Your task to perform on an android device: Add asus rog to the cart on amazon Image 0: 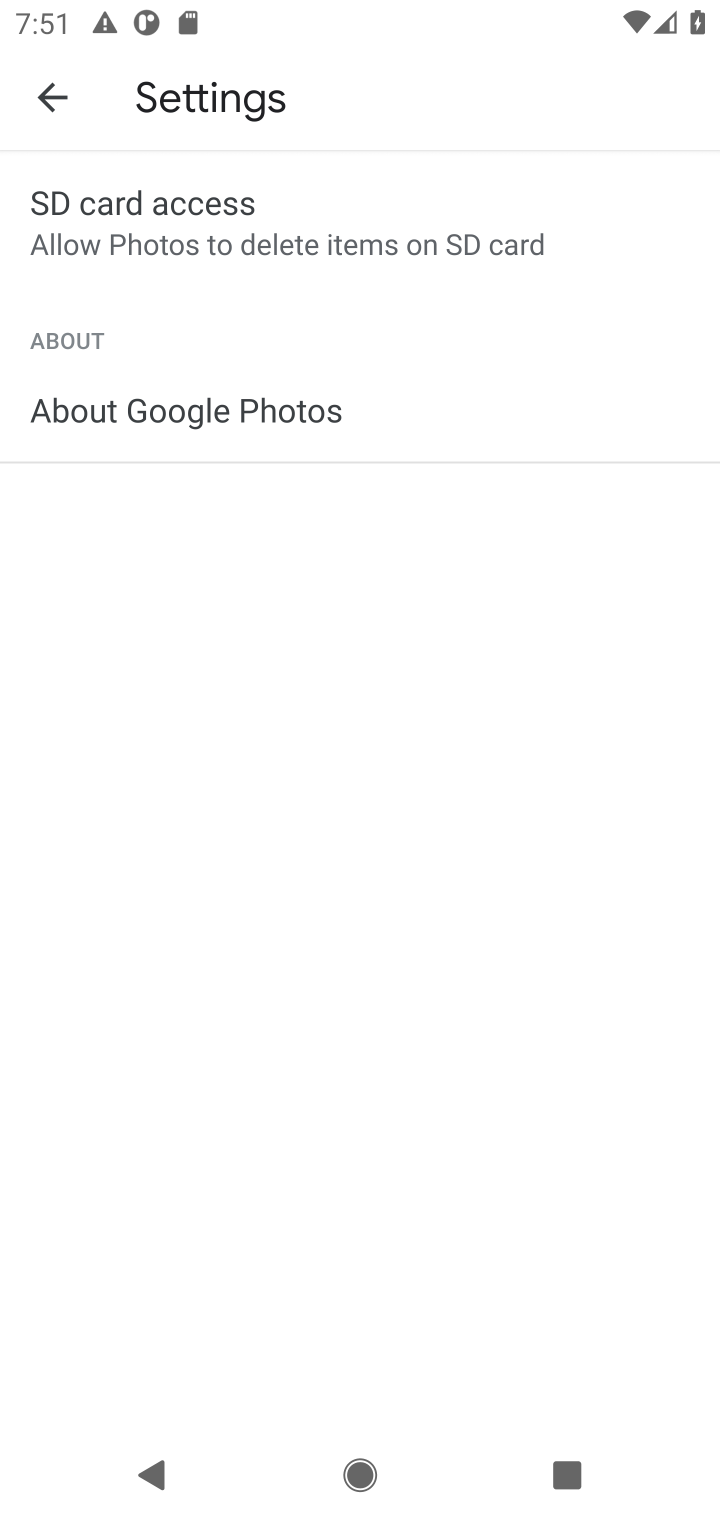
Step 0: press home button
Your task to perform on an android device: Add asus rog to the cart on amazon Image 1: 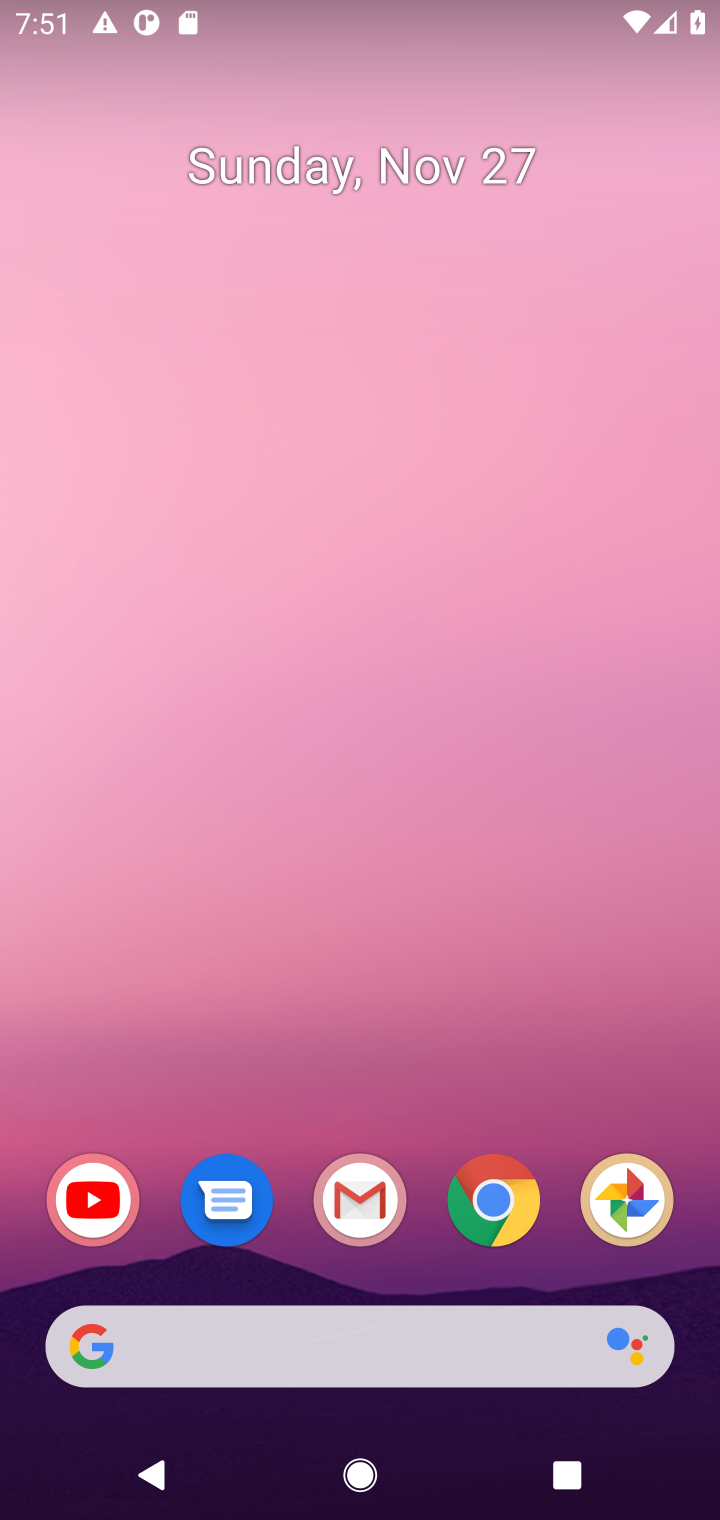
Step 1: click (504, 1204)
Your task to perform on an android device: Add asus rog to the cart on amazon Image 2: 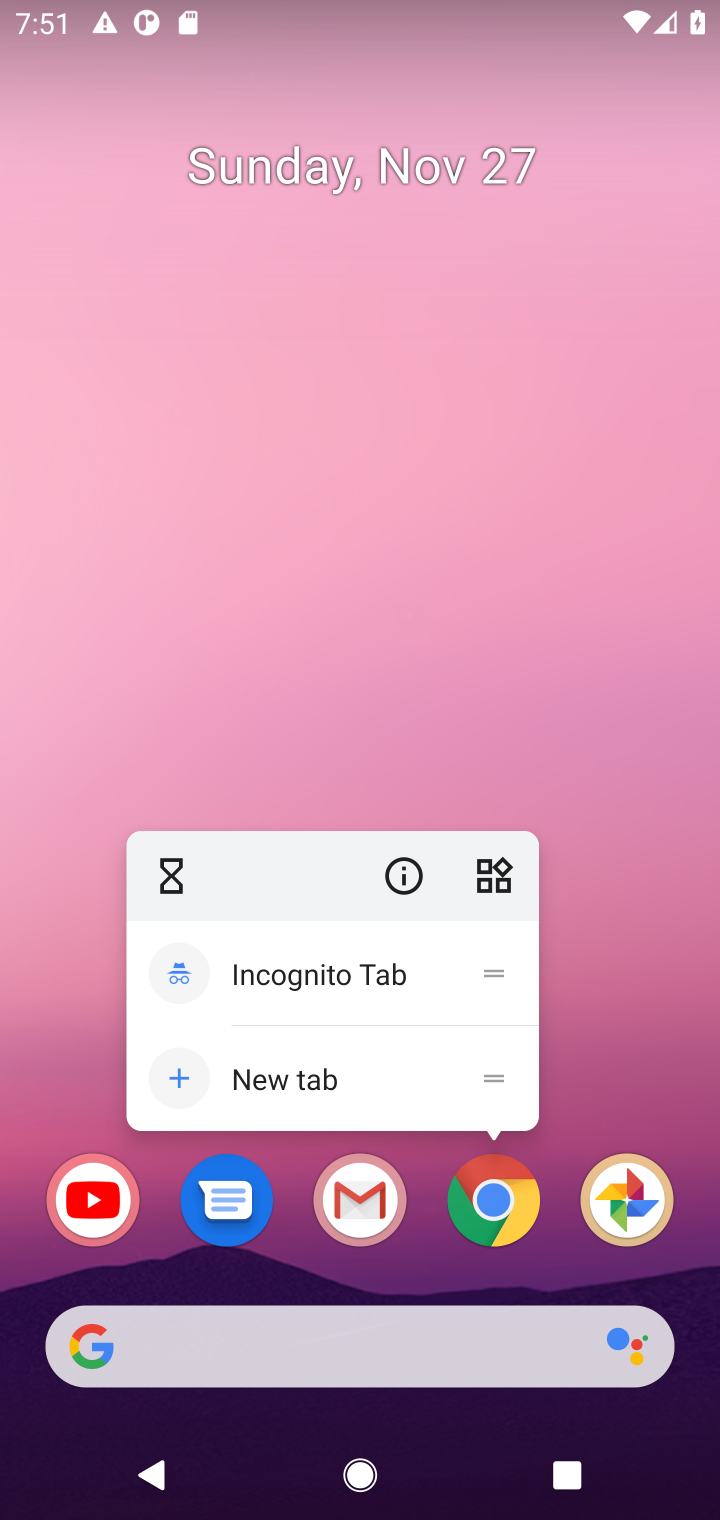
Step 2: click (504, 1204)
Your task to perform on an android device: Add asus rog to the cart on amazon Image 3: 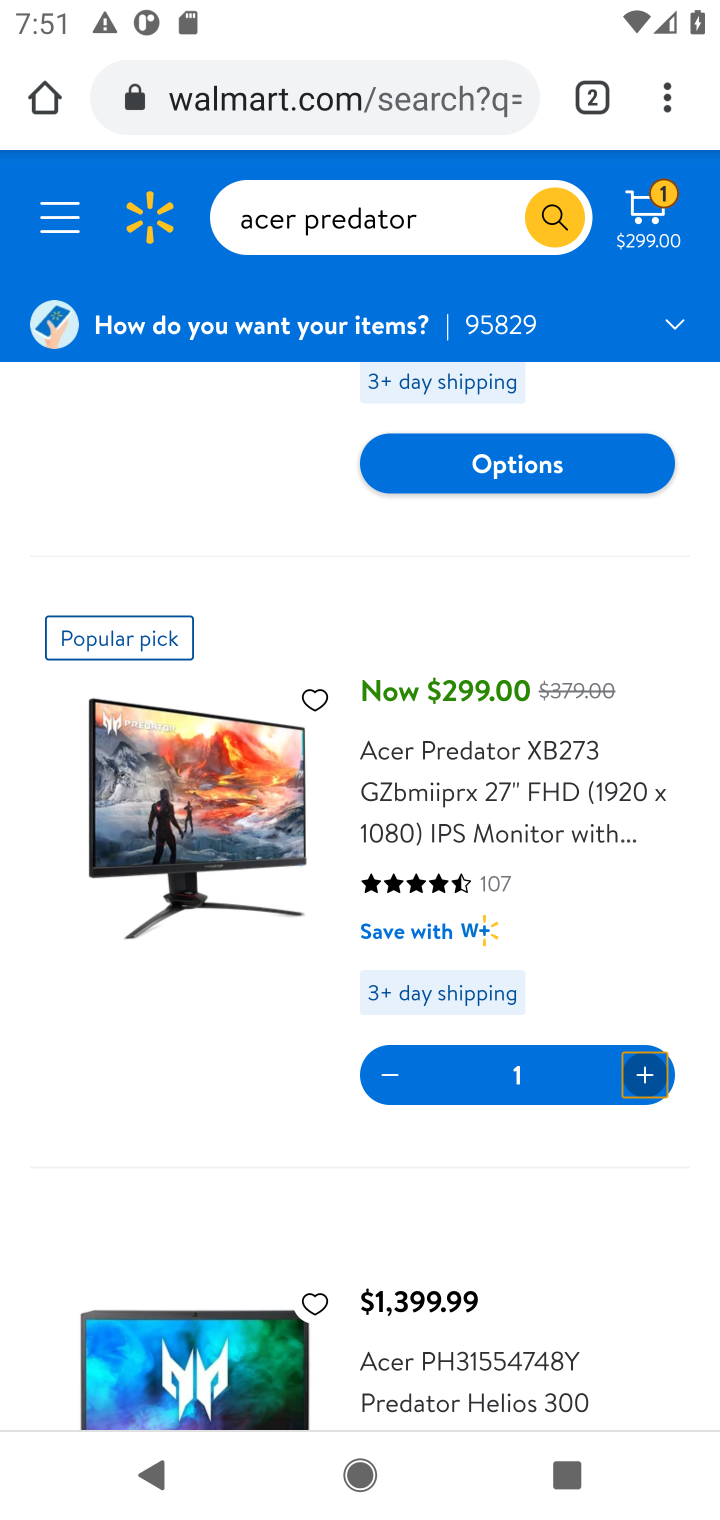
Step 3: click (348, 113)
Your task to perform on an android device: Add asus rog to the cart on amazon Image 4: 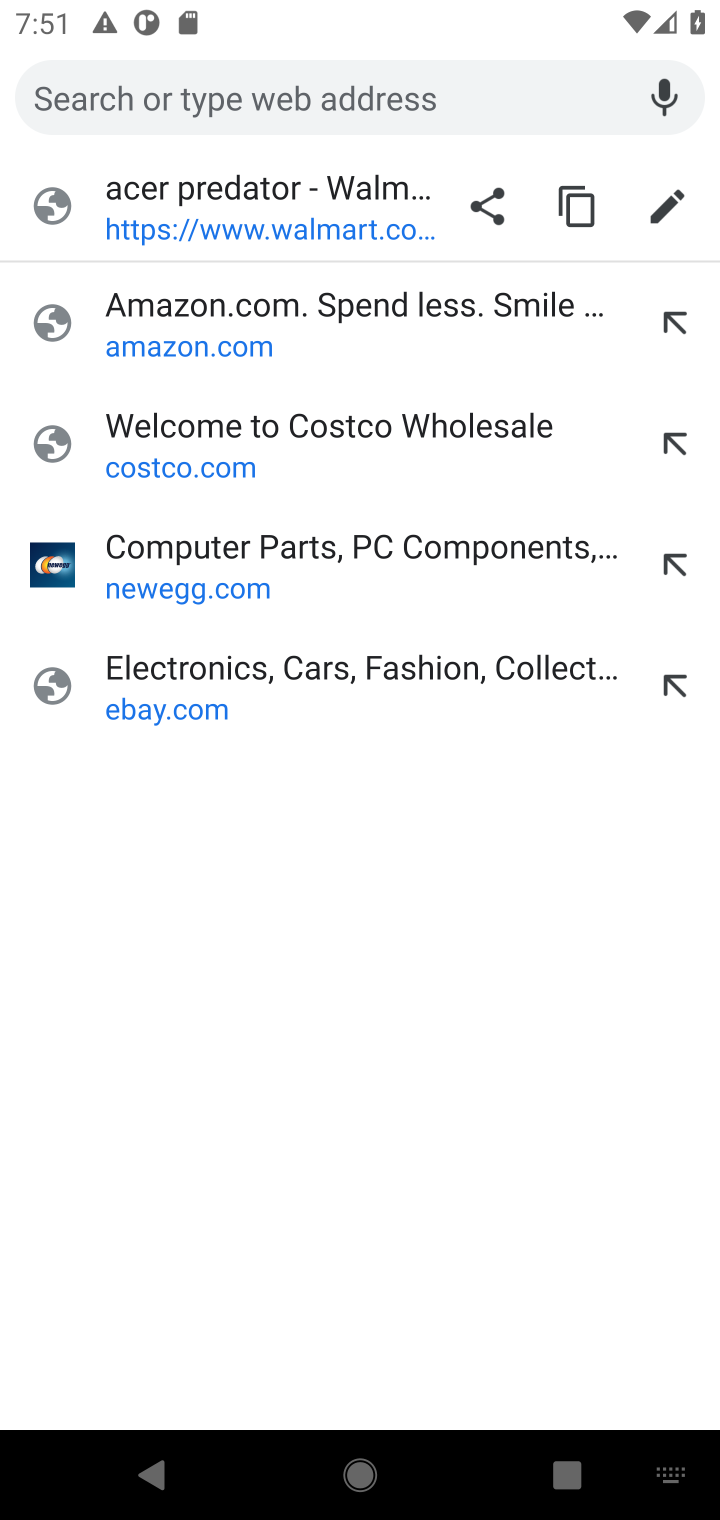
Step 4: click (190, 323)
Your task to perform on an android device: Add asus rog to the cart on amazon Image 5: 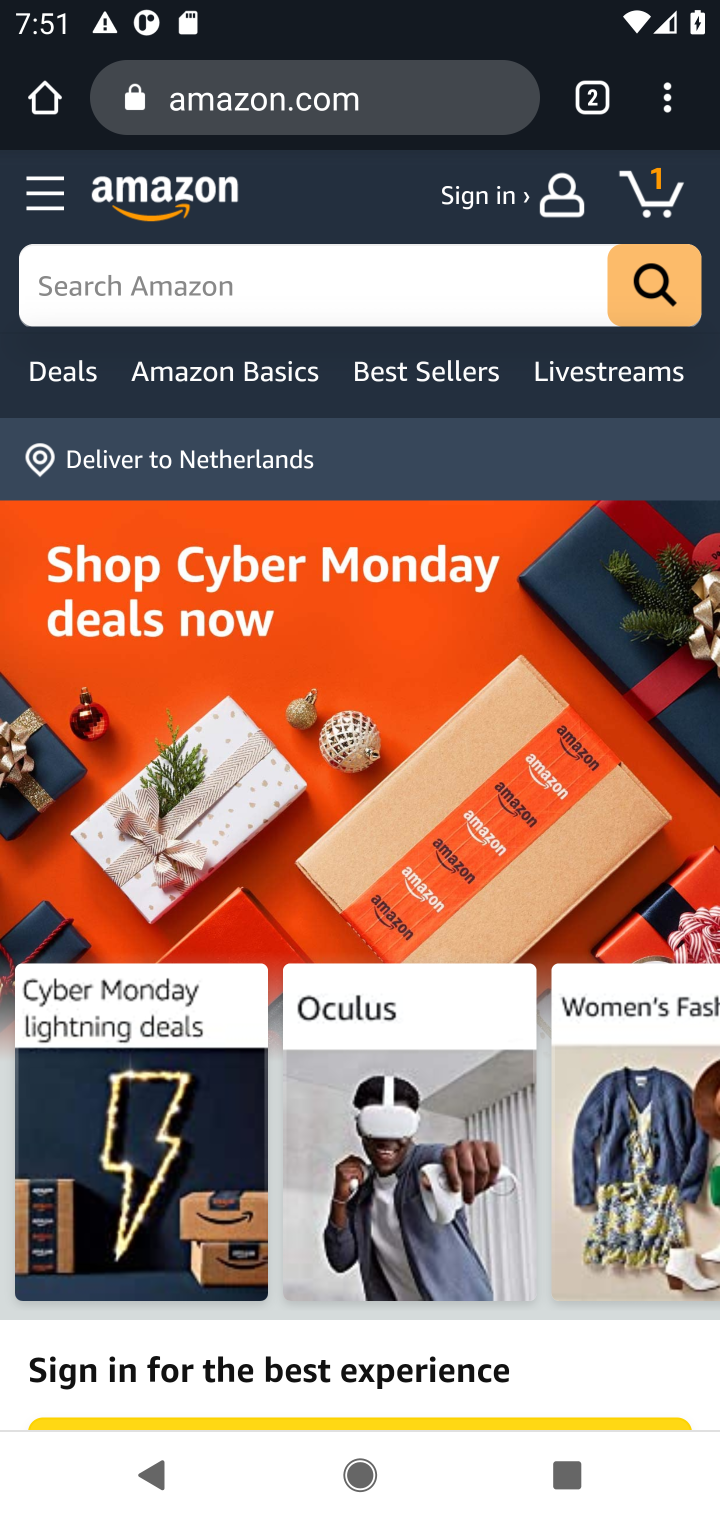
Step 5: click (164, 307)
Your task to perform on an android device: Add asus rog to the cart on amazon Image 6: 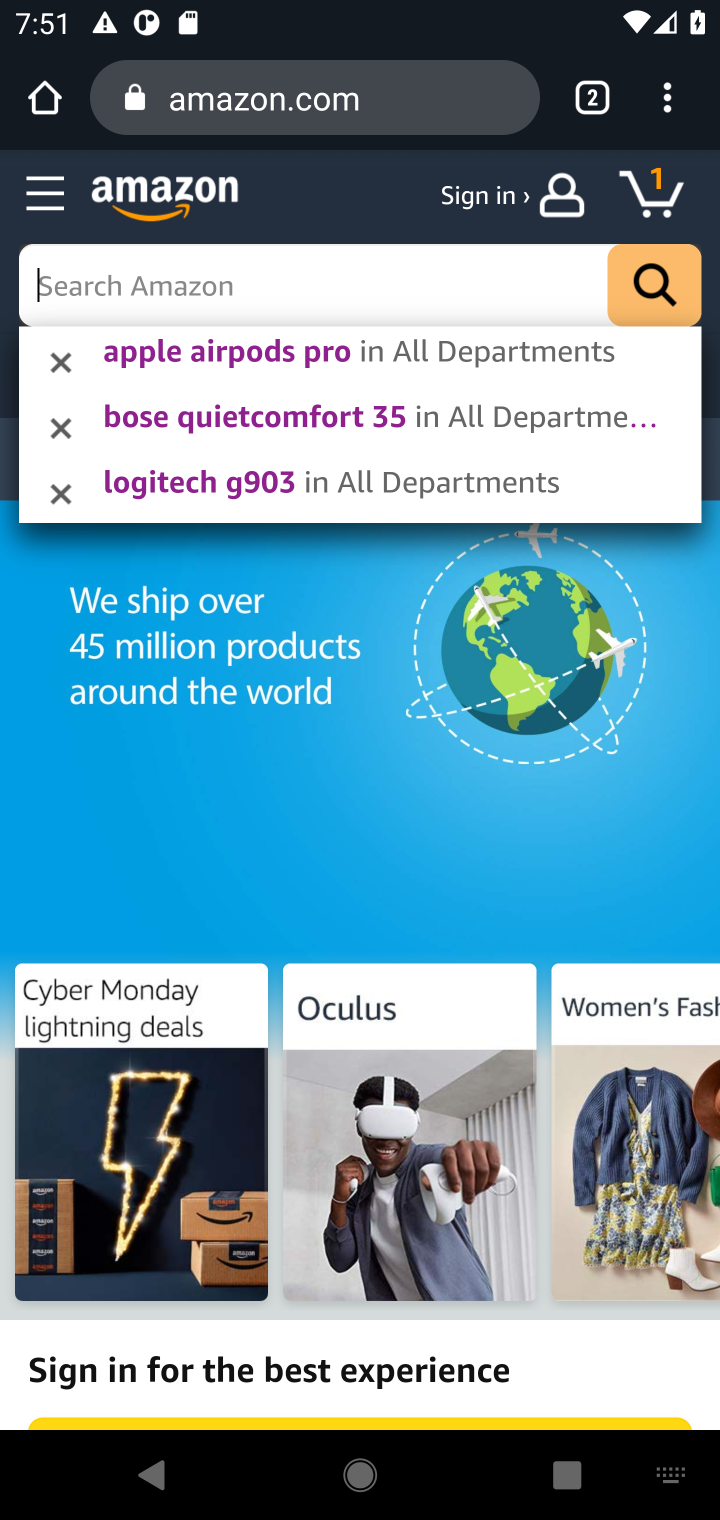
Step 6: type "asus rog"
Your task to perform on an android device: Add asus rog to the cart on amazon Image 7: 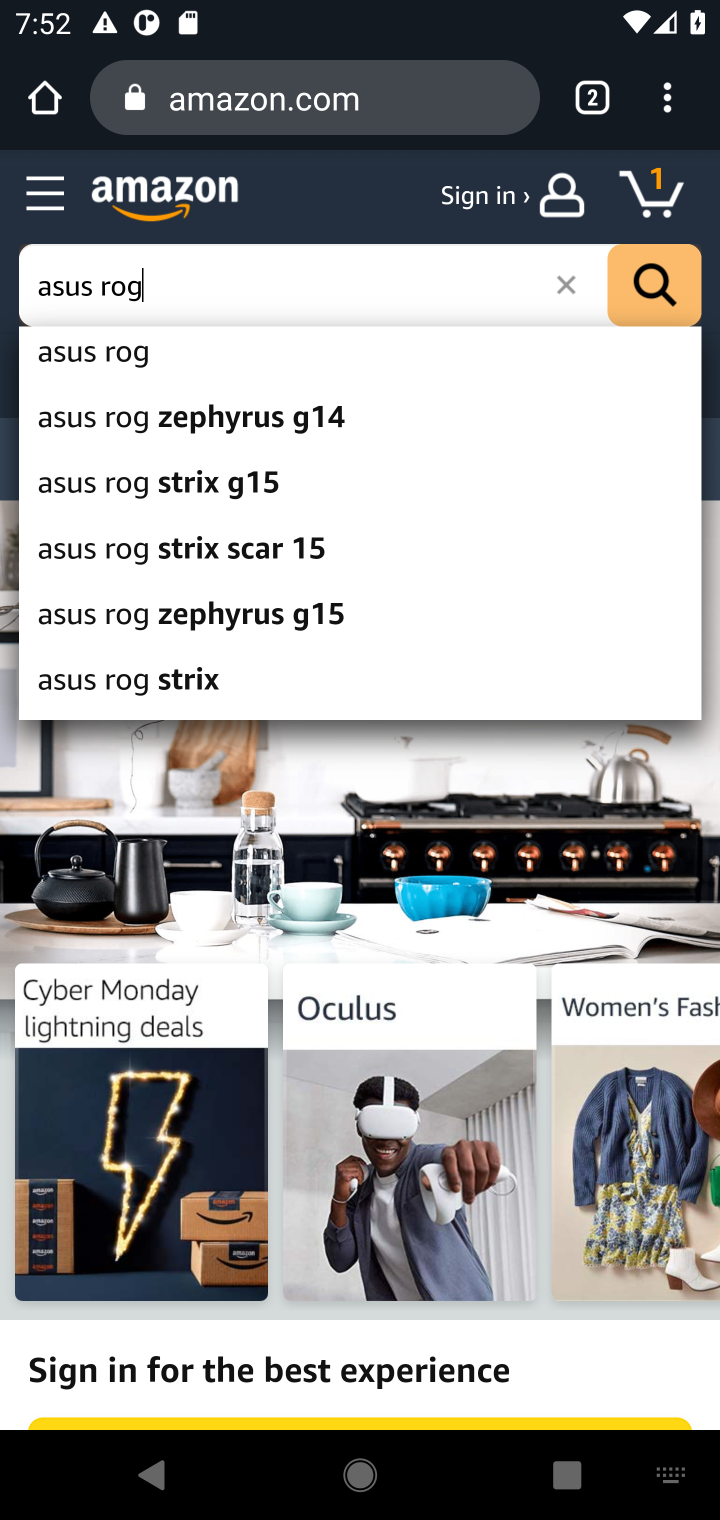
Step 7: click (127, 359)
Your task to perform on an android device: Add asus rog to the cart on amazon Image 8: 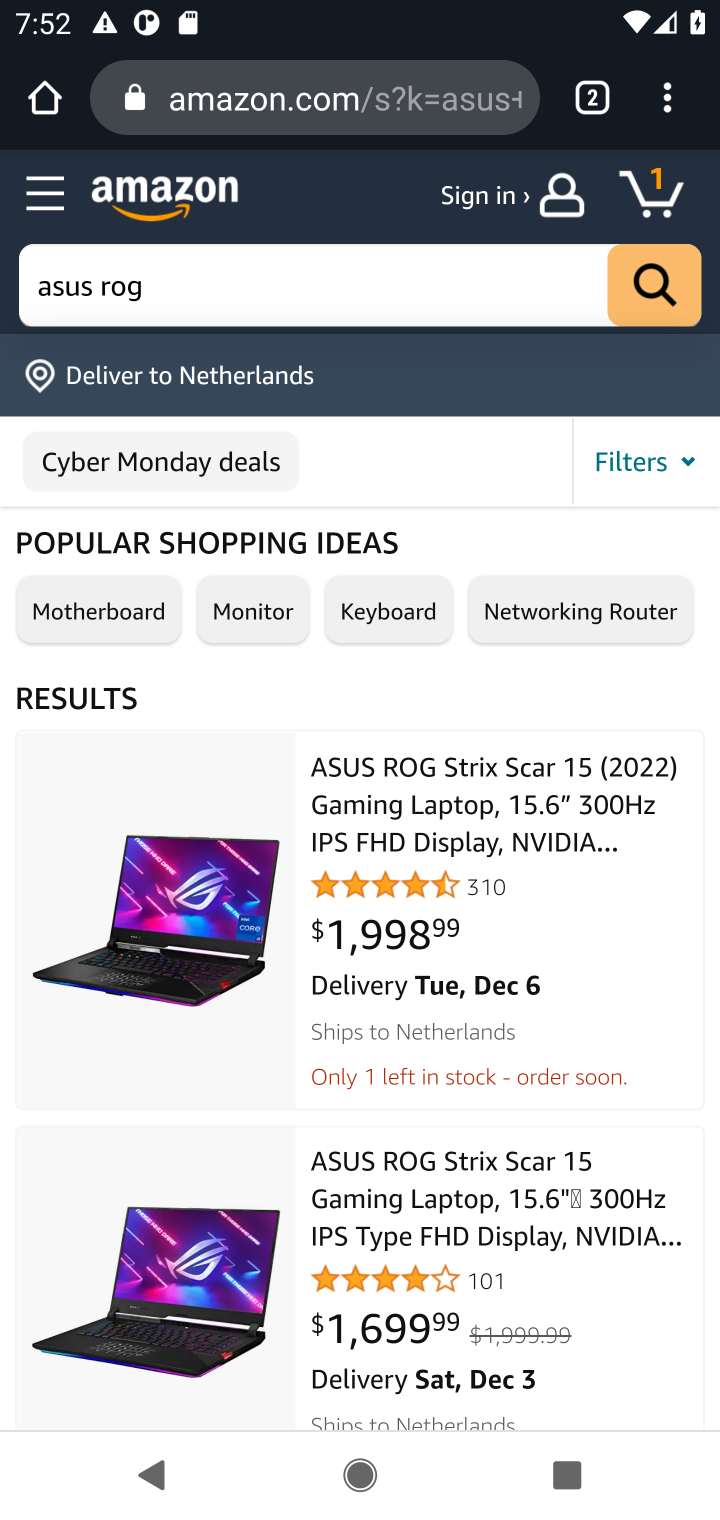
Step 8: click (131, 927)
Your task to perform on an android device: Add asus rog to the cart on amazon Image 9: 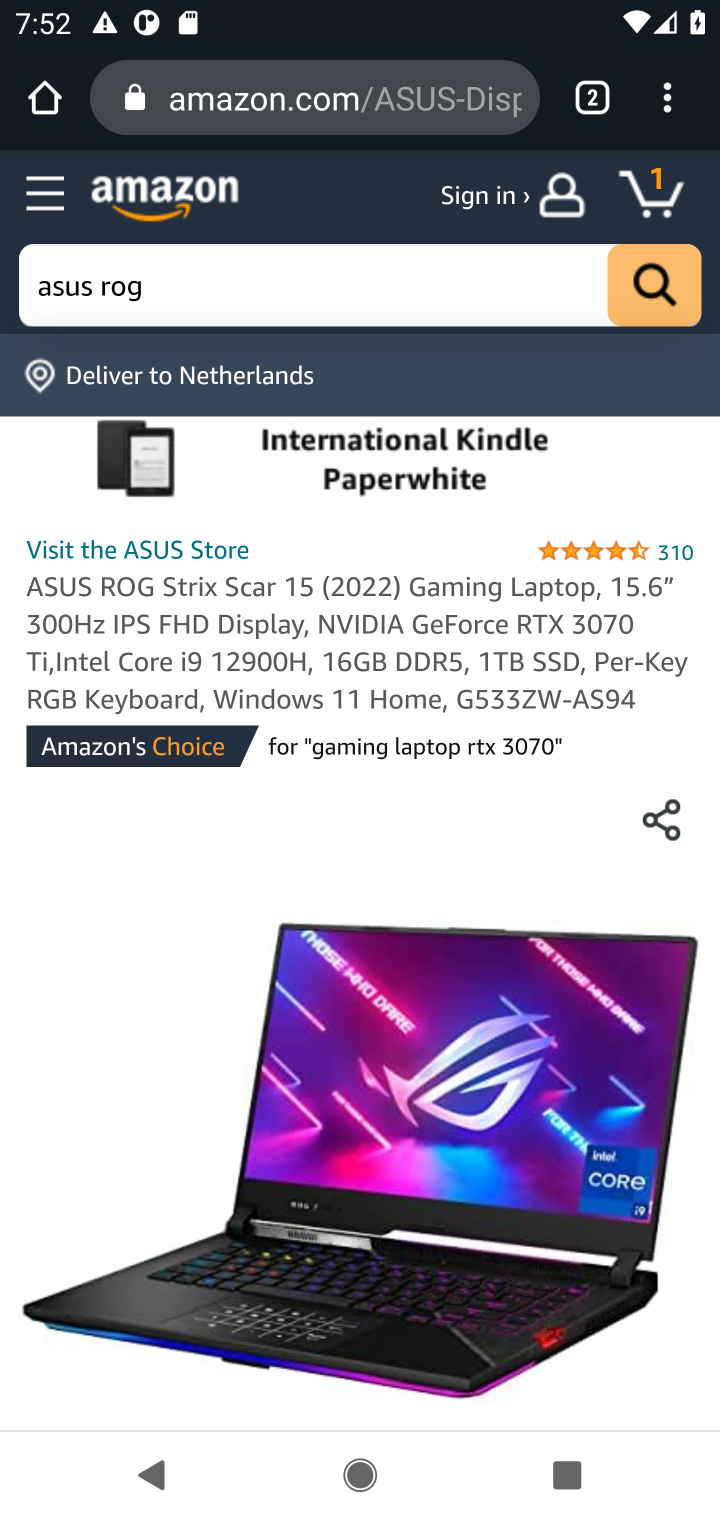
Step 9: drag from (202, 1005) to (195, 439)
Your task to perform on an android device: Add asus rog to the cart on amazon Image 10: 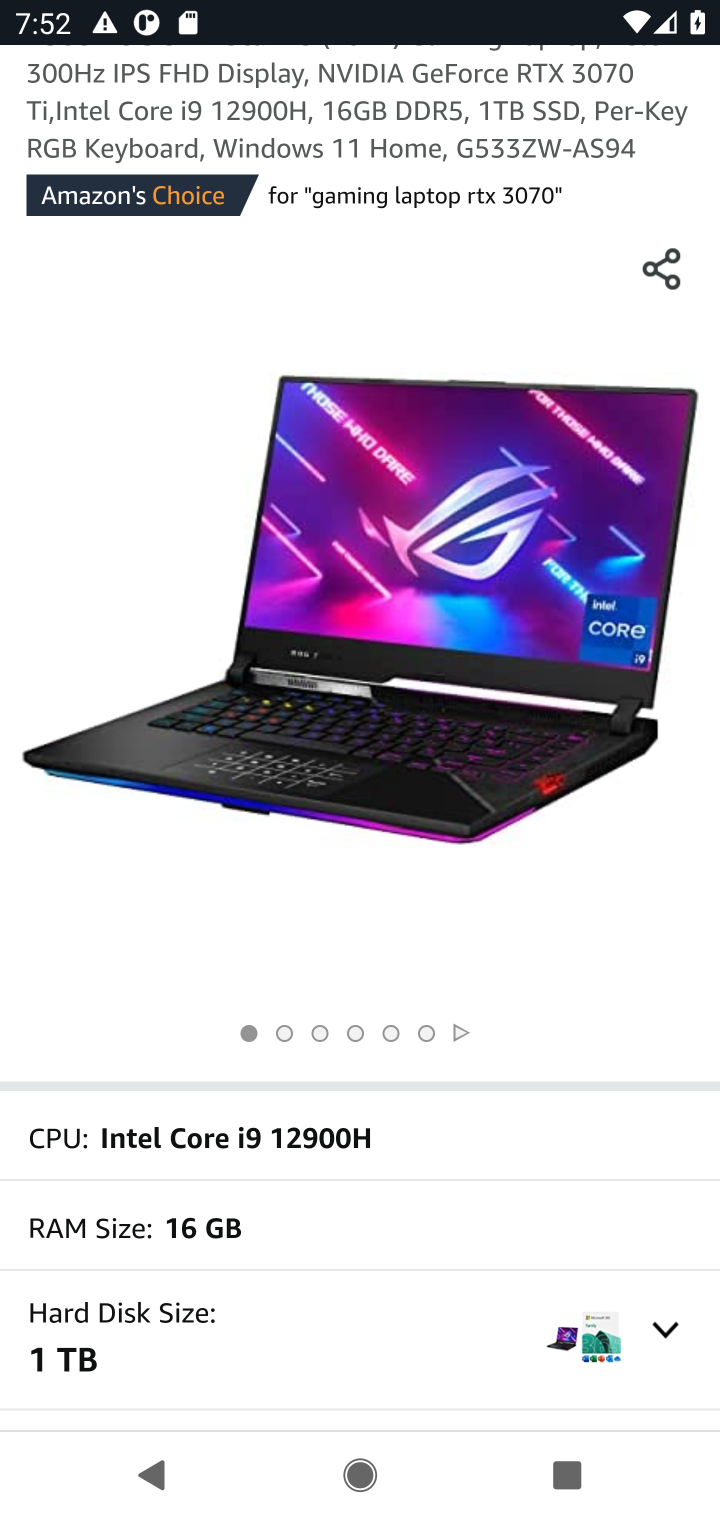
Step 10: drag from (249, 724) to (255, 309)
Your task to perform on an android device: Add asus rog to the cart on amazon Image 11: 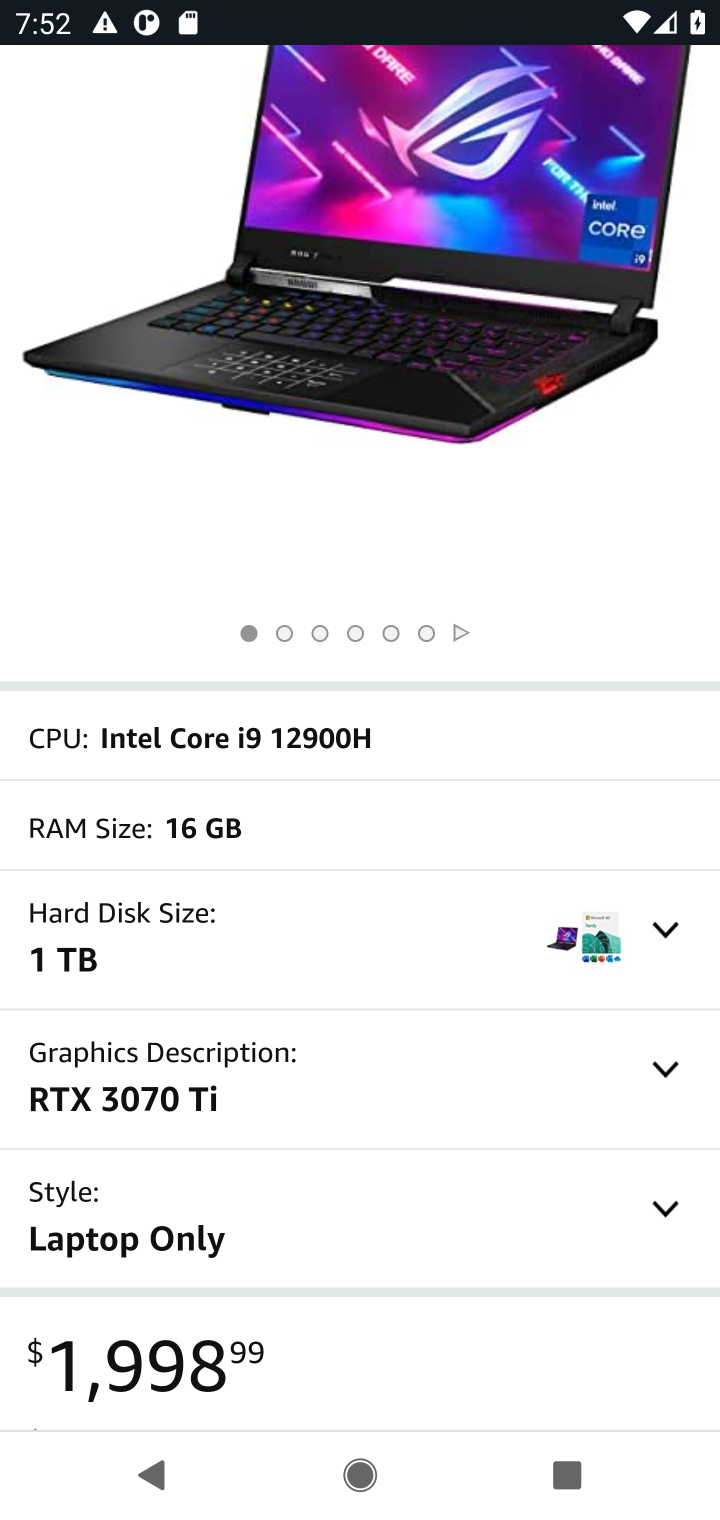
Step 11: drag from (259, 1180) to (287, 408)
Your task to perform on an android device: Add asus rog to the cart on amazon Image 12: 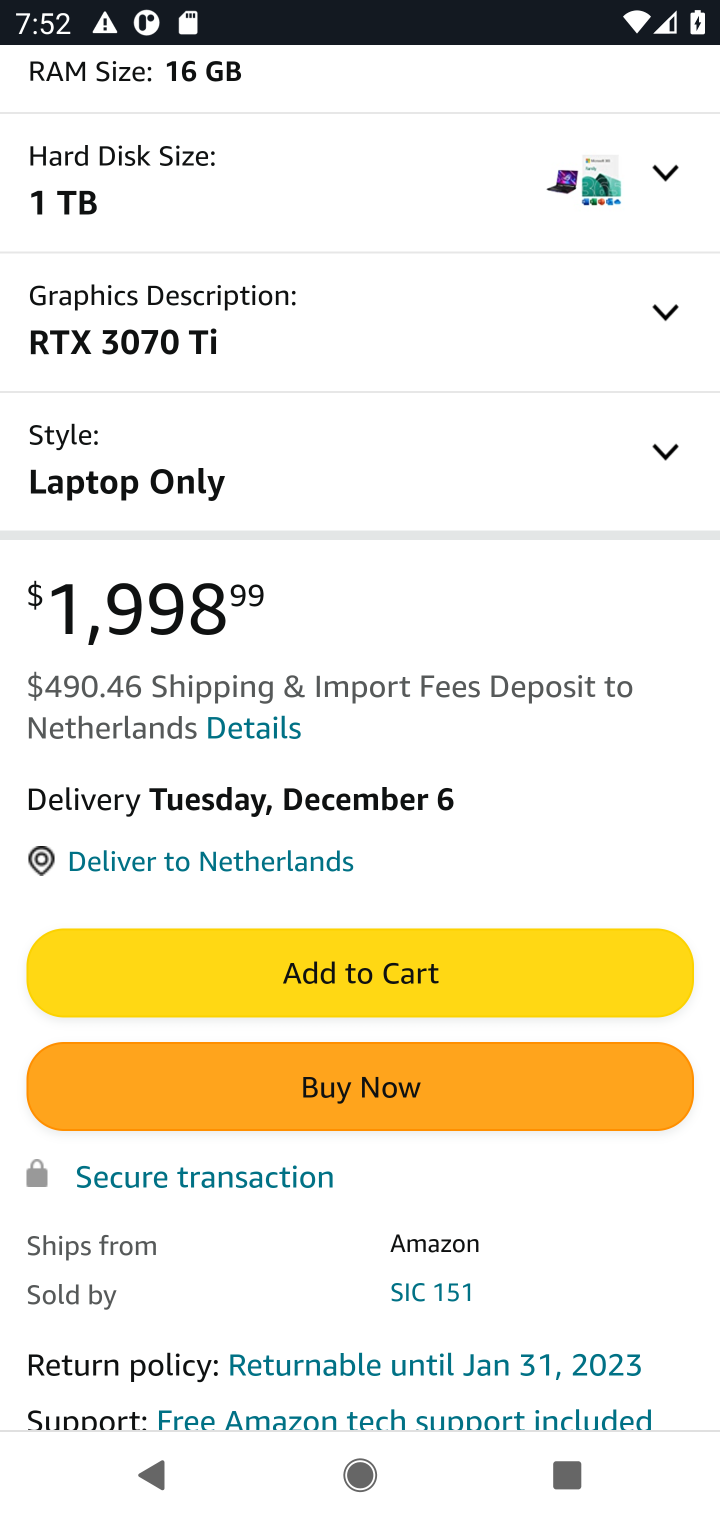
Step 12: click (322, 977)
Your task to perform on an android device: Add asus rog to the cart on amazon Image 13: 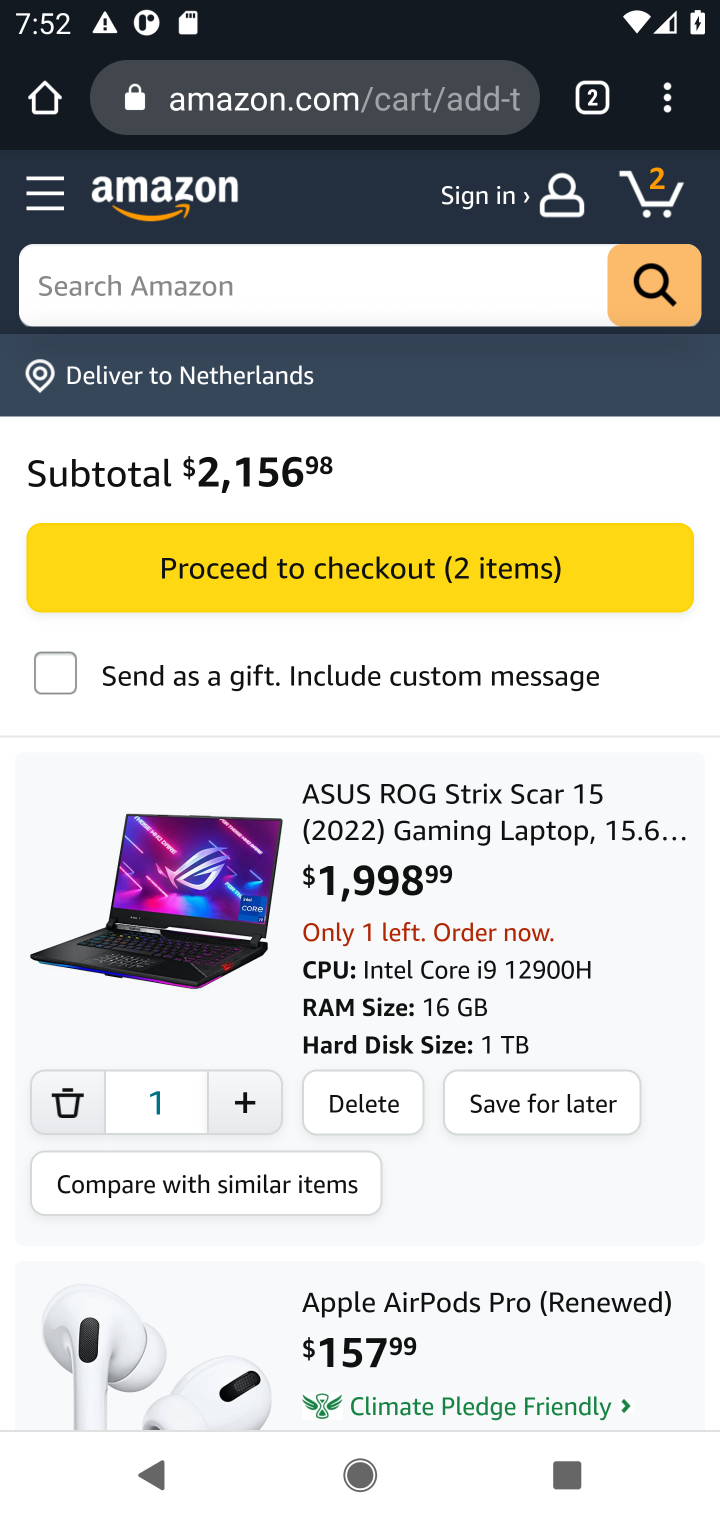
Step 13: task complete